Your task to perform on an android device: turn off location history Image 0: 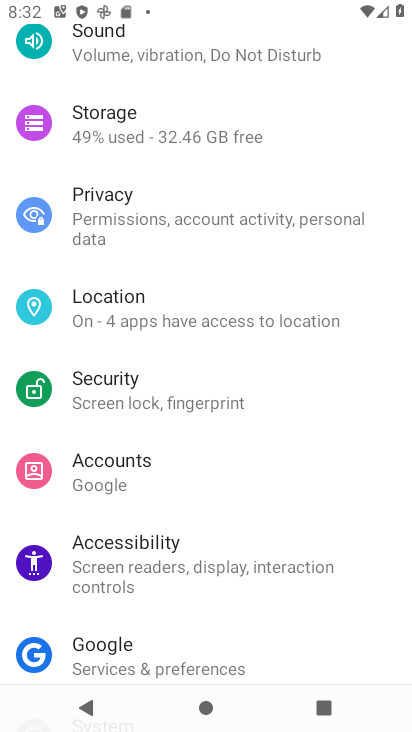
Step 0: click (262, 285)
Your task to perform on an android device: turn off location history Image 1: 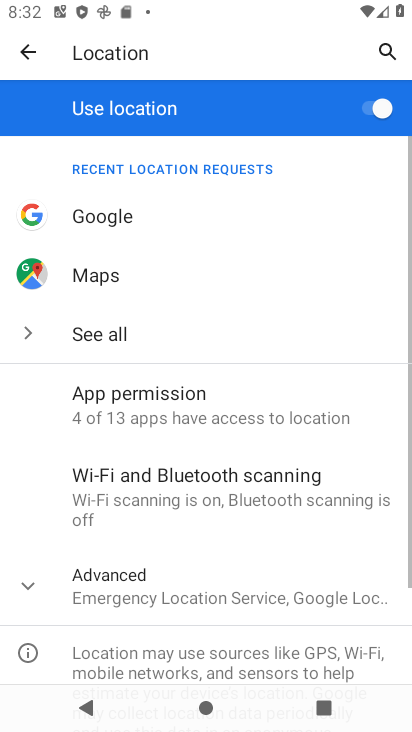
Step 1: click (123, 586)
Your task to perform on an android device: turn off location history Image 2: 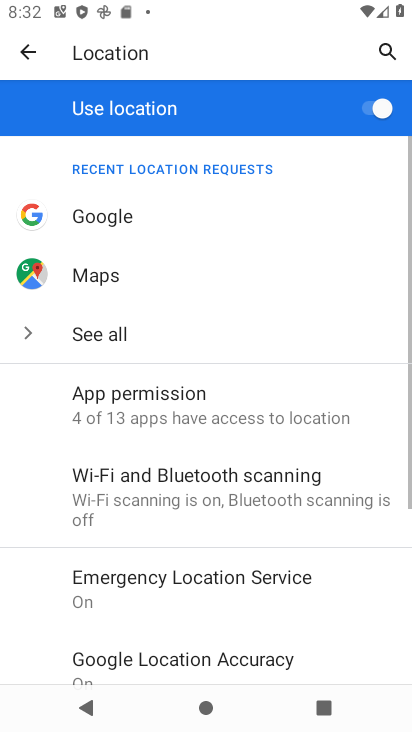
Step 2: drag from (180, 602) to (266, 375)
Your task to perform on an android device: turn off location history Image 3: 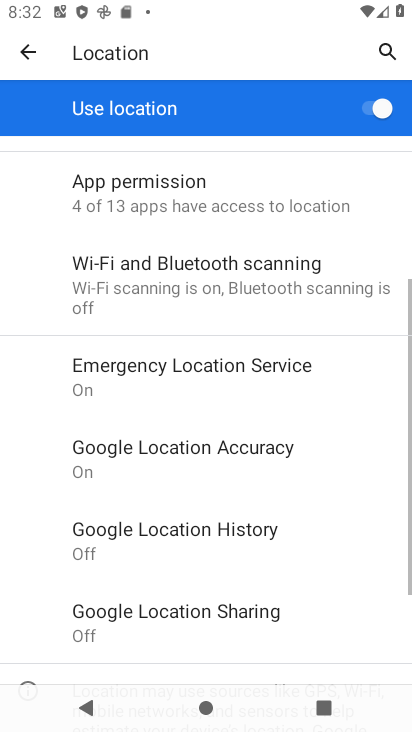
Step 3: click (266, 375)
Your task to perform on an android device: turn off location history Image 4: 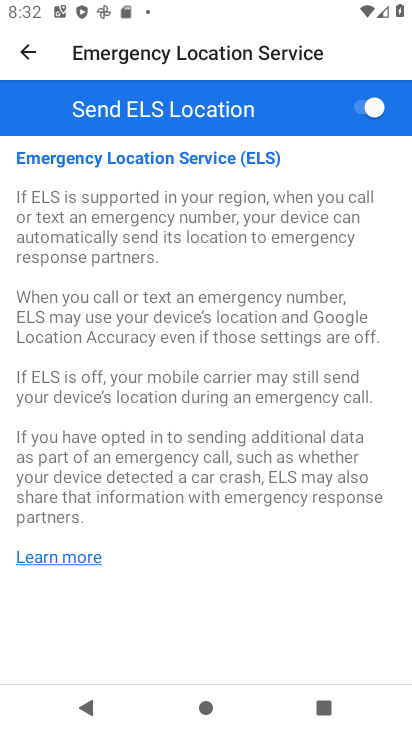
Step 4: task complete